Your task to perform on an android device: change the clock display to digital Image 0: 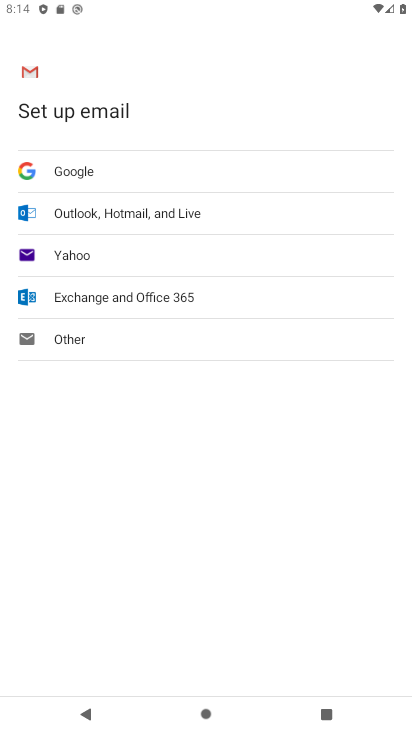
Step 0: press home button
Your task to perform on an android device: change the clock display to digital Image 1: 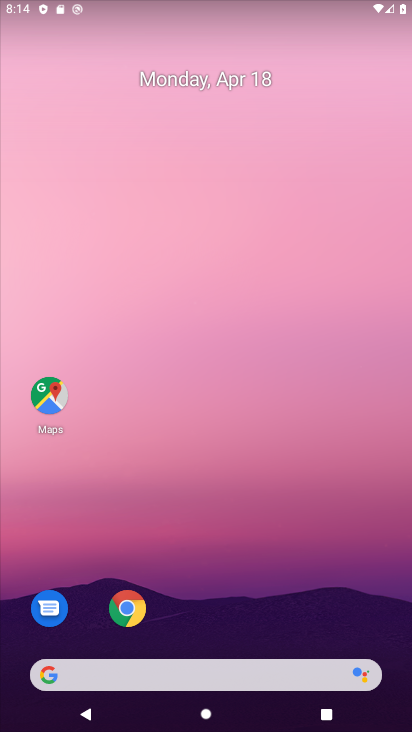
Step 1: drag from (182, 631) to (260, 187)
Your task to perform on an android device: change the clock display to digital Image 2: 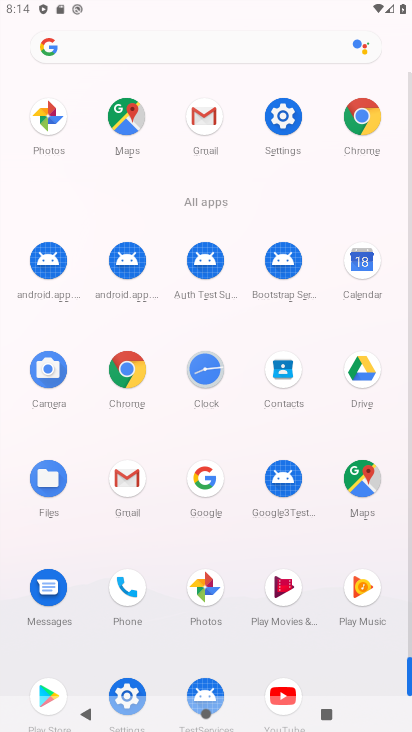
Step 2: click (207, 370)
Your task to perform on an android device: change the clock display to digital Image 3: 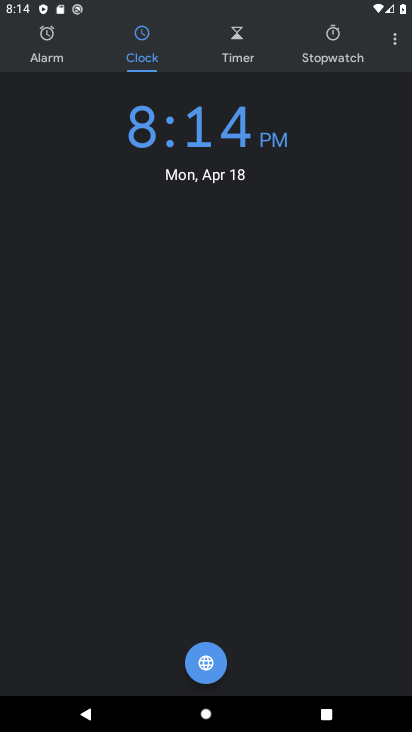
Step 3: click (398, 36)
Your task to perform on an android device: change the clock display to digital Image 4: 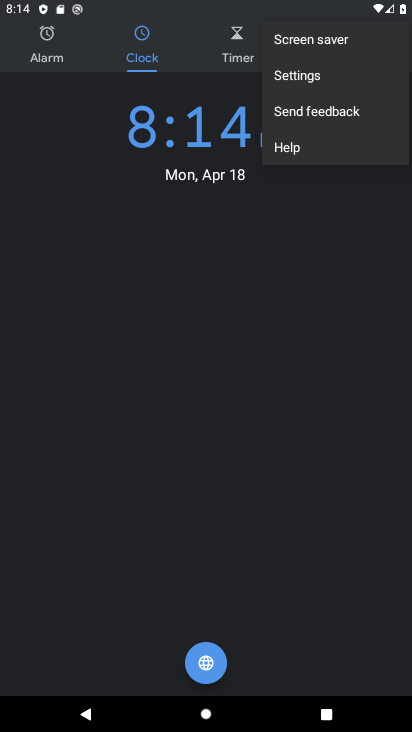
Step 4: click (307, 74)
Your task to perform on an android device: change the clock display to digital Image 5: 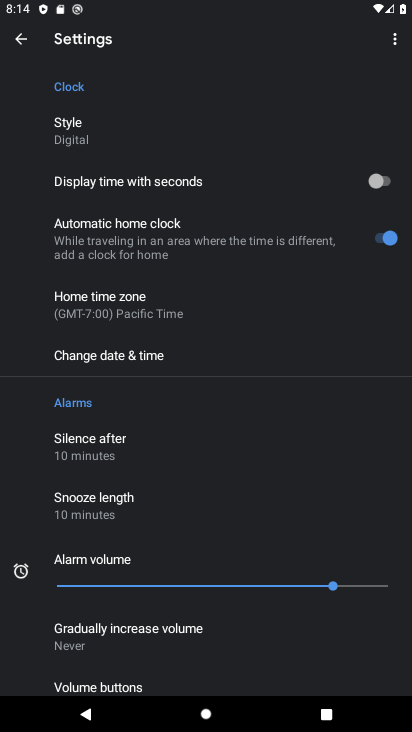
Step 5: click (73, 135)
Your task to perform on an android device: change the clock display to digital Image 6: 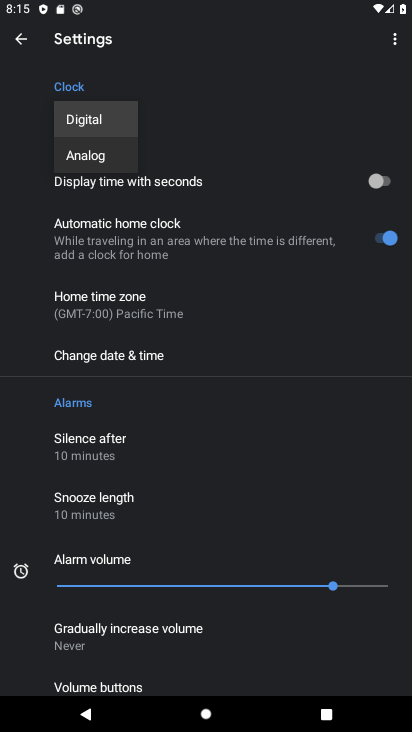
Step 6: click (95, 124)
Your task to perform on an android device: change the clock display to digital Image 7: 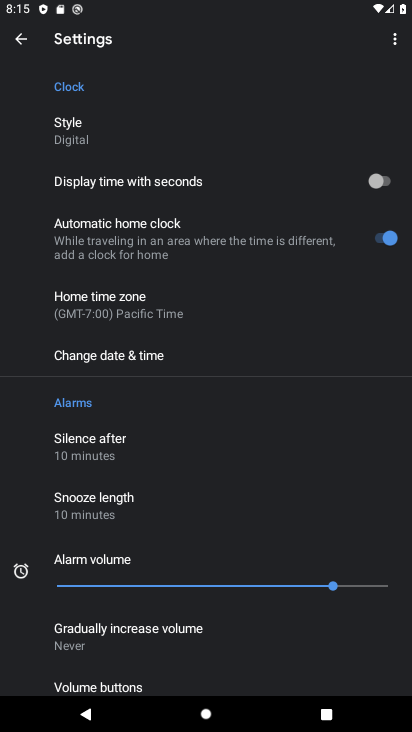
Step 7: task complete